Your task to perform on an android device: Turn off the flashlight Image 0: 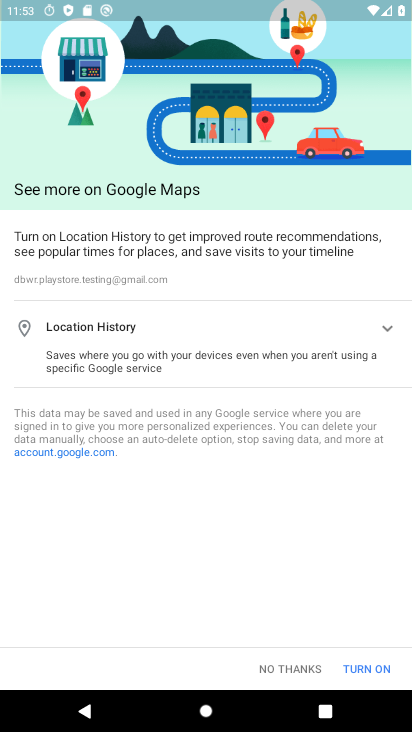
Step 0: drag from (224, 7) to (252, 429)
Your task to perform on an android device: Turn off the flashlight Image 1: 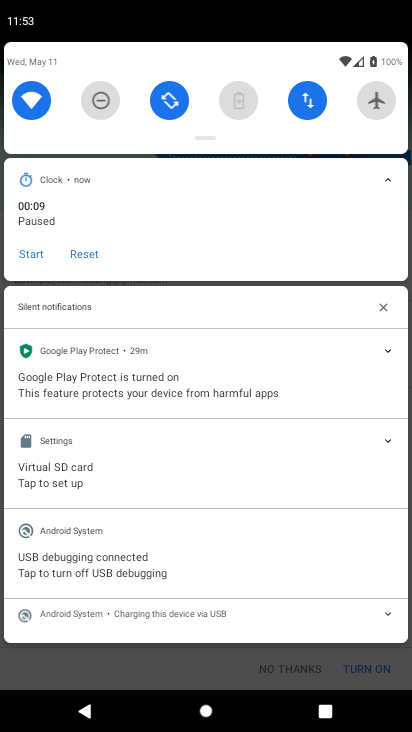
Step 1: drag from (223, 117) to (235, 505)
Your task to perform on an android device: Turn off the flashlight Image 2: 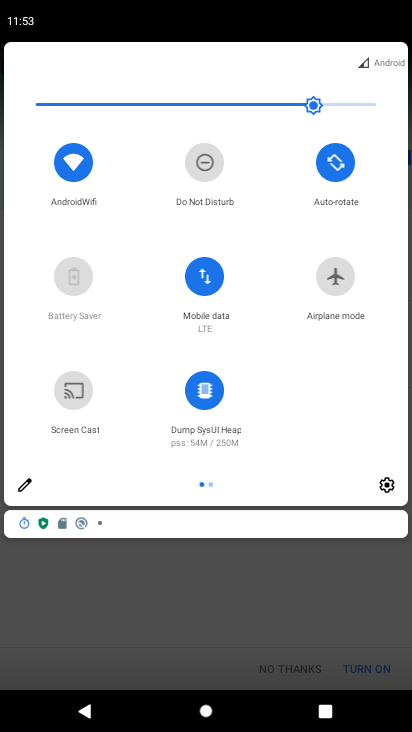
Step 2: drag from (371, 365) to (8, 391)
Your task to perform on an android device: Turn off the flashlight Image 3: 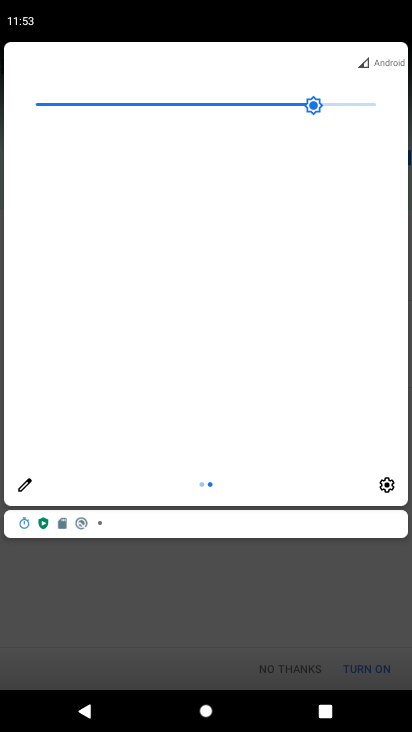
Step 3: click (32, 482)
Your task to perform on an android device: Turn off the flashlight Image 4: 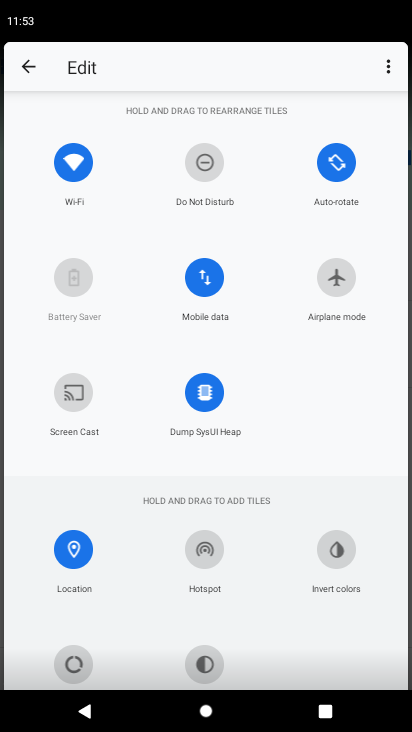
Step 4: task complete